Your task to perform on an android device: Go to notification settings Image 0: 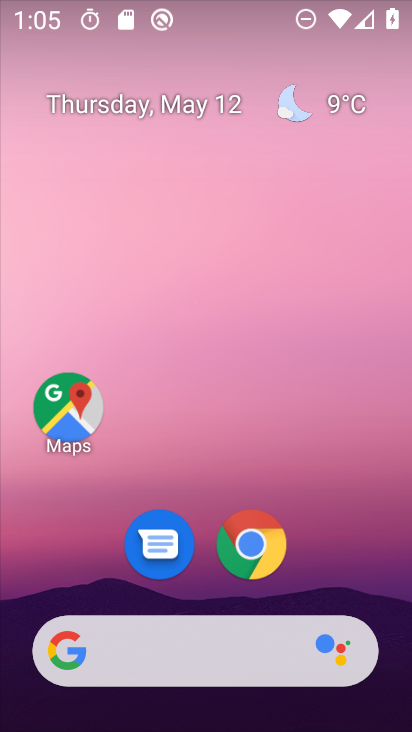
Step 0: drag from (214, 725) to (197, 288)
Your task to perform on an android device: Go to notification settings Image 1: 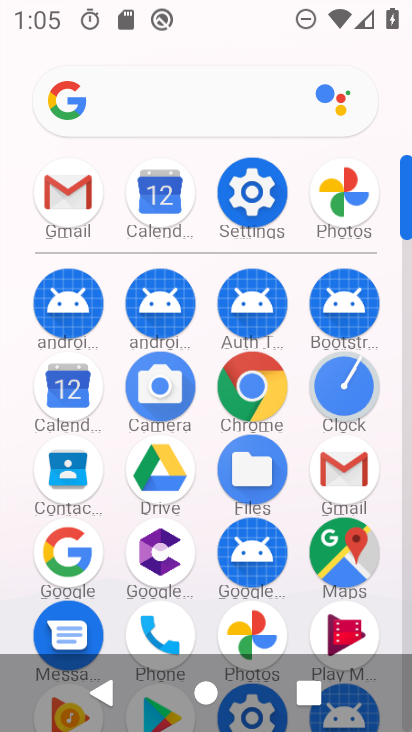
Step 1: click (257, 184)
Your task to perform on an android device: Go to notification settings Image 2: 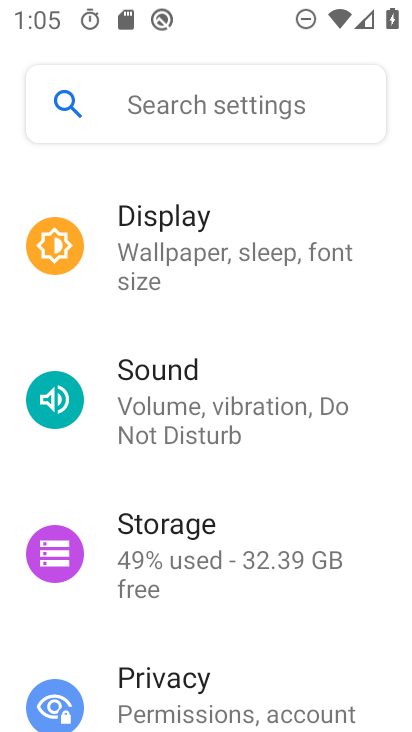
Step 2: drag from (194, 644) to (232, 189)
Your task to perform on an android device: Go to notification settings Image 3: 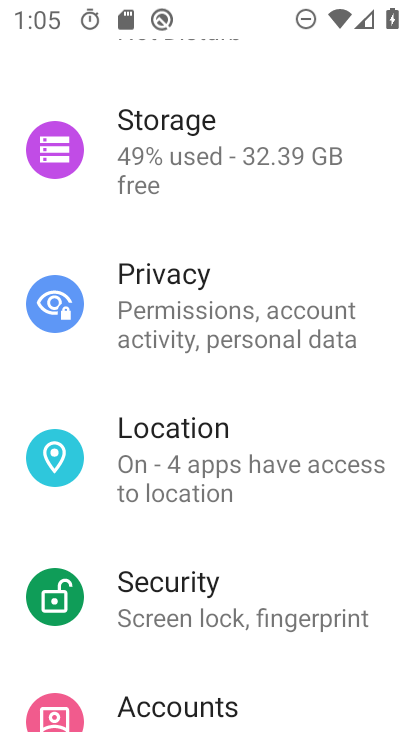
Step 3: drag from (261, 121) to (268, 558)
Your task to perform on an android device: Go to notification settings Image 4: 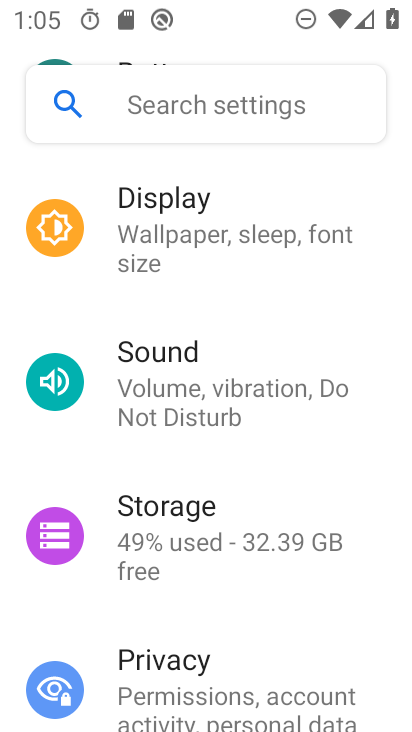
Step 4: drag from (280, 192) to (292, 641)
Your task to perform on an android device: Go to notification settings Image 5: 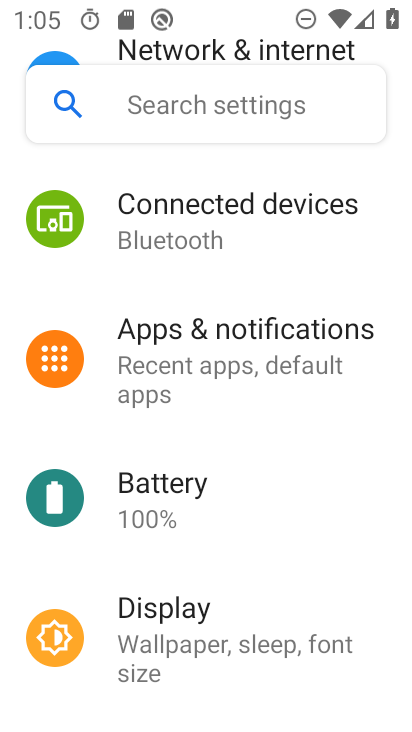
Step 5: click (222, 350)
Your task to perform on an android device: Go to notification settings Image 6: 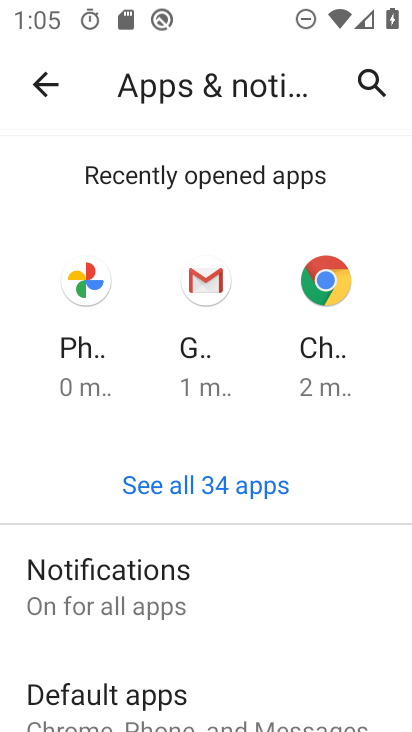
Step 6: click (124, 585)
Your task to perform on an android device: Go to notification settings Image 7: 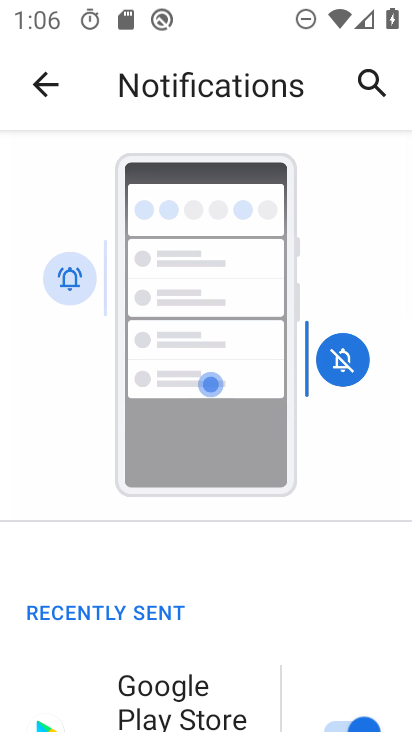
Step 7: task complete